Your task to perform on an android device: Open Maps and search for coffee Image 0: 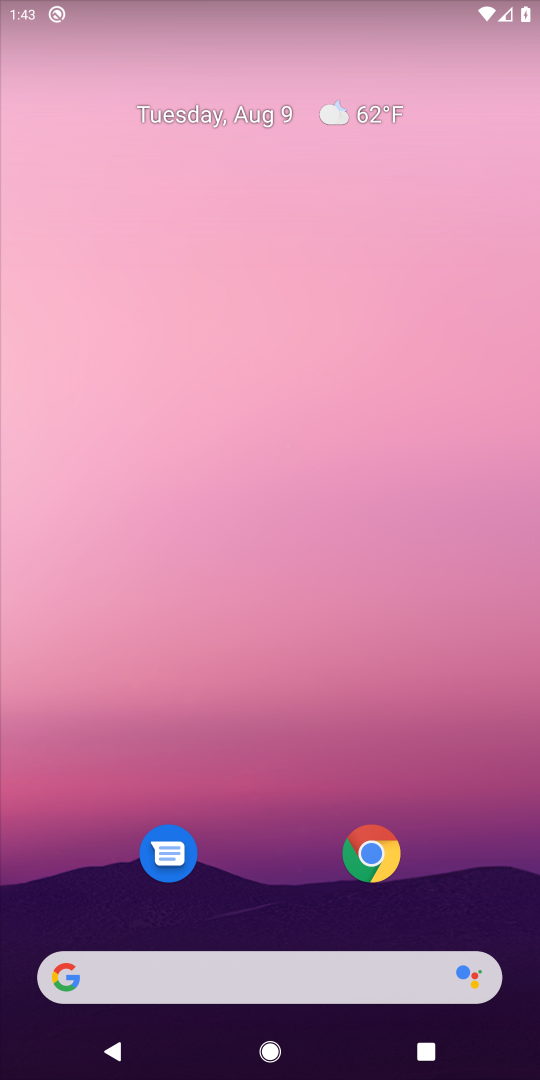
Step 0: press home button
Your task to perform on an android device: Open Maps and search for coffee Image 1: 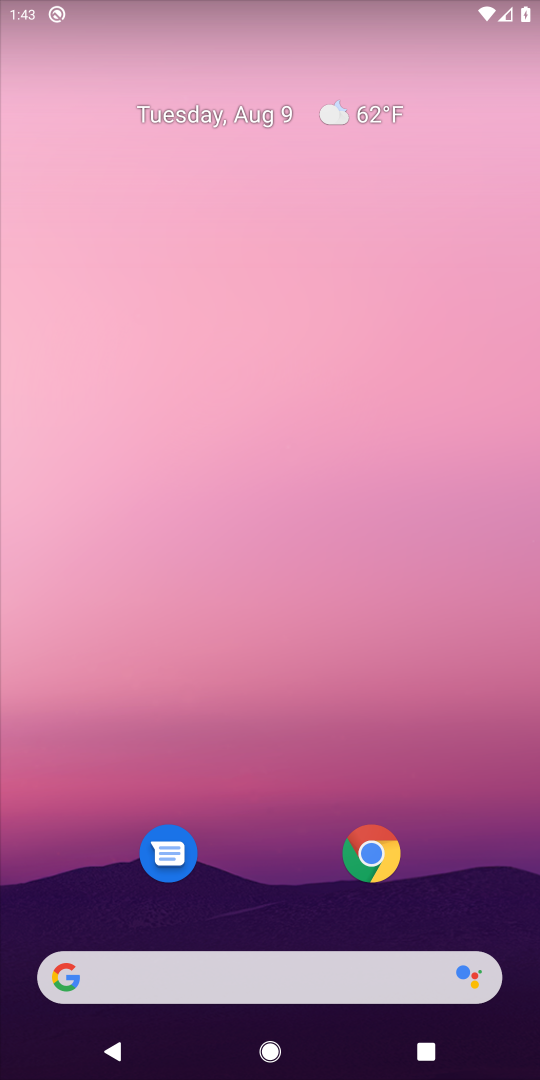
Step 1: drag from (266, 912) to (235, 309)
Your task to perform on an android device: Open Maps and search for coffee Image 2: 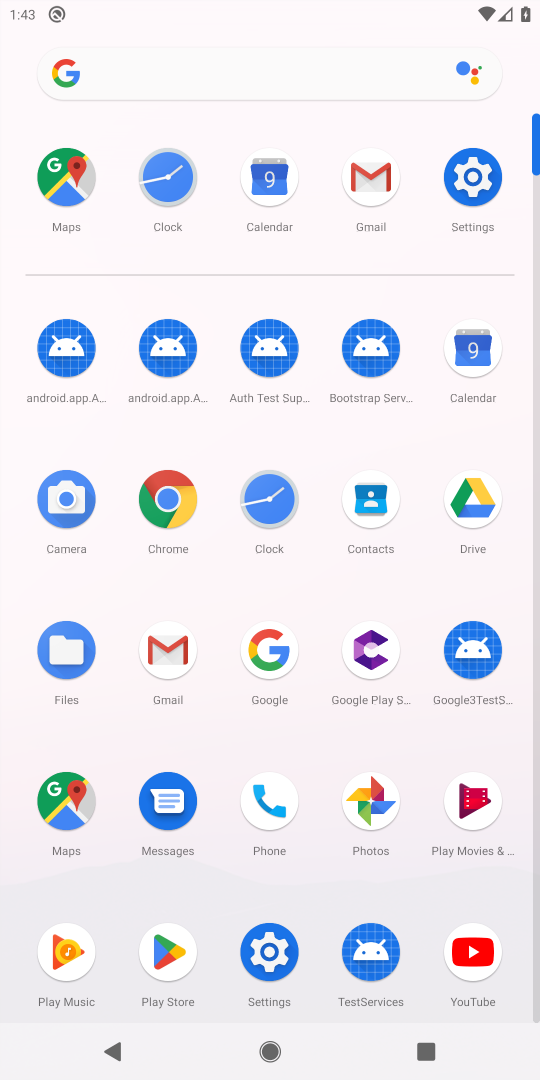
Step 2: click (64, 185)
Your task to perform on an android device: Open Maps and search for coffee Image 3: 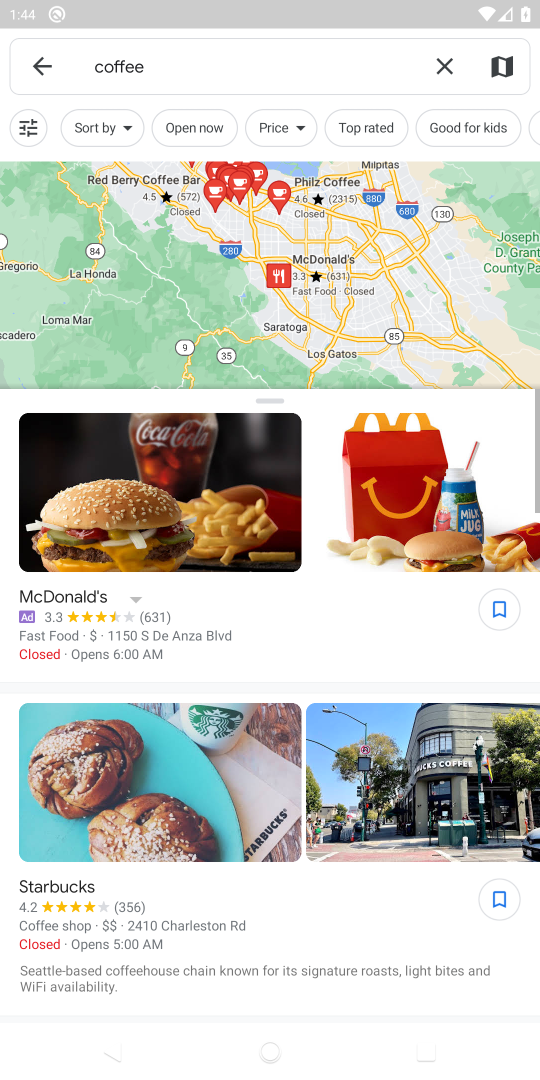
Step 3: task complete